Your task to perform on an android device: Open display settings Image 0: 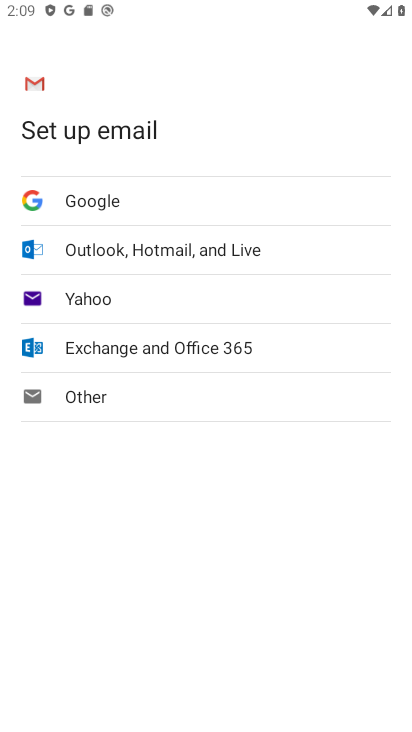
Step 0: press home button
Your task to perform on an android device: Open display settings Image 1: 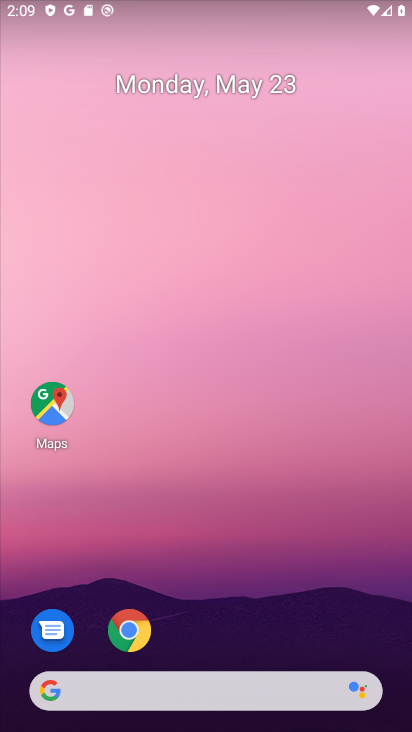
Step 1: drag from (275, 455) to (281, 144)
Your task to perform on an android device: Open display settings Image 2: 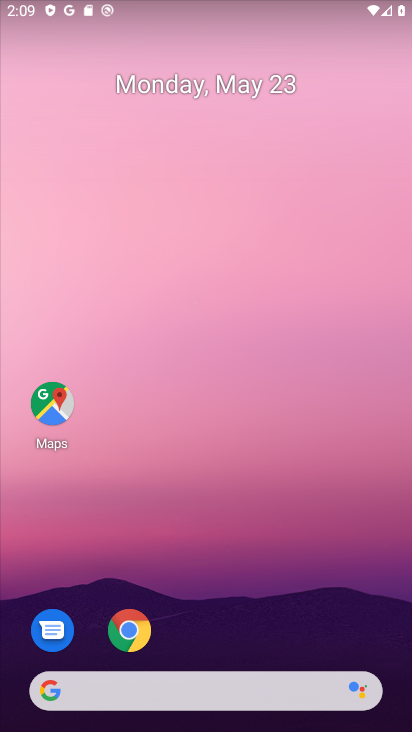
Step 2: drag from (241, 577) to (278, 95)
Your task to perform on an android device: Open display settings Image 3: 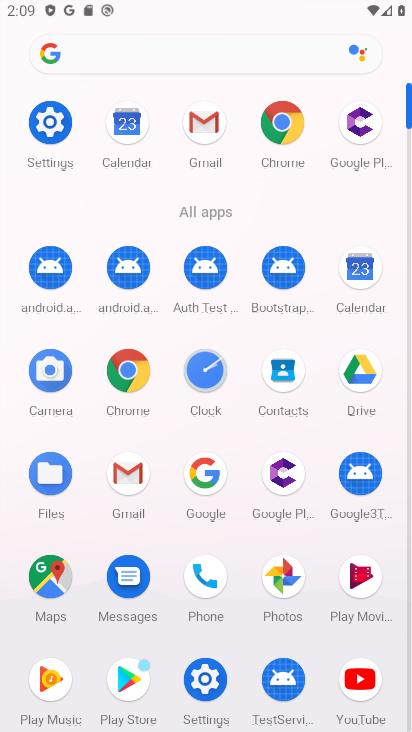
Step 3: click (76, 118)
Your task to perform on an android device: Open display settings Image 4: 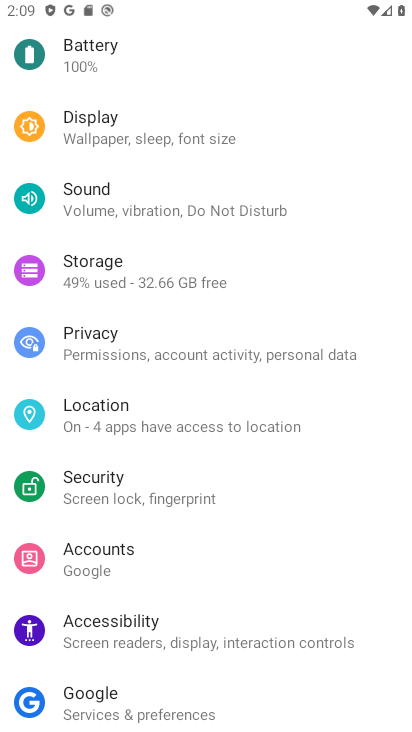
Step 4: click (109, 152)
Your task to perform on an android device: Open display settings Image 5: 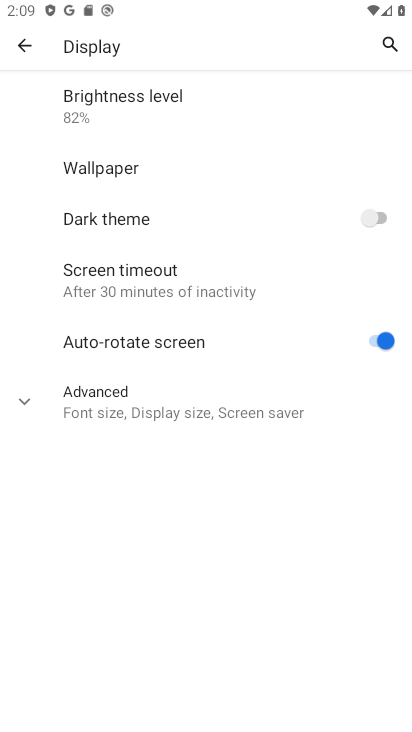
Step 5: task complete